Your task to perform on an android device: turn on the 24-hour format for clock Image 0: 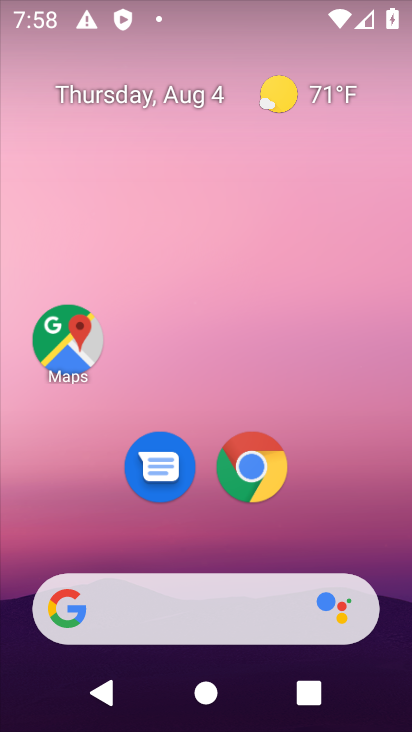
Step 0: press home button
Your task to perform on an android device: turn on the 24-hour format for clock Image 1: 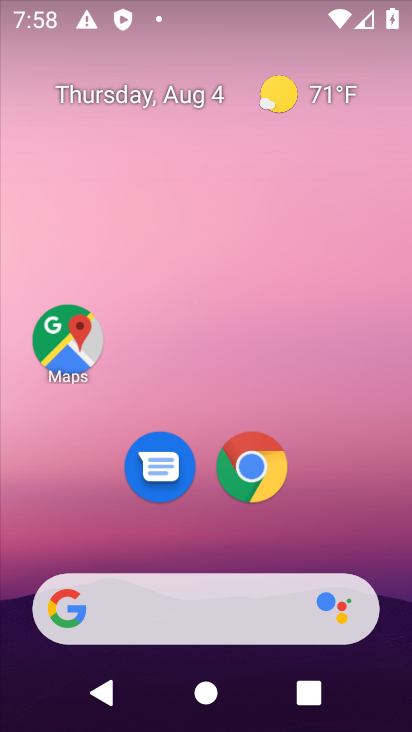
Step 1: drag from (336, 496) to (336, 36)
Your task to perform on an android device: turn on the 24-hour format for clock Image 2: 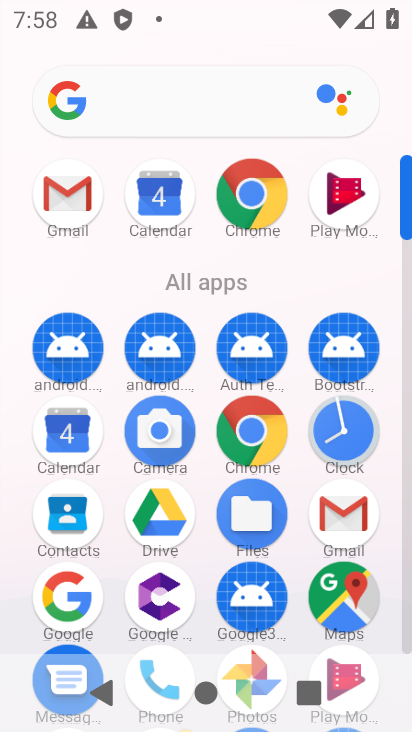
Step 2: click (347, 437)
Your task to perform on an android device: turn on the 24-hour format for clock Image 3: 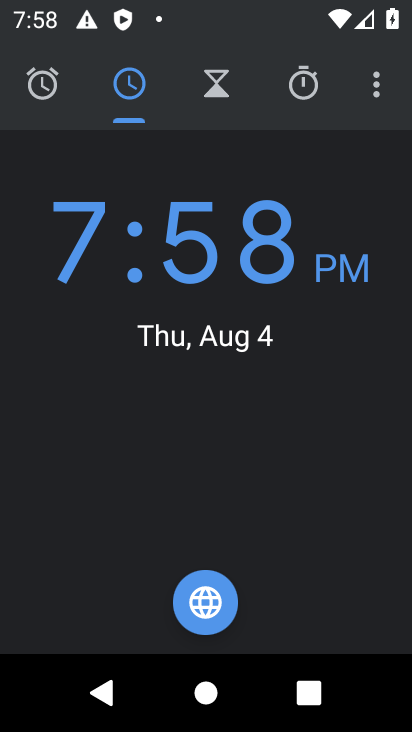
Step 3: click (376, 92)
Your task to perform on an android device: turn on the 24-hour format for clock Image 4: 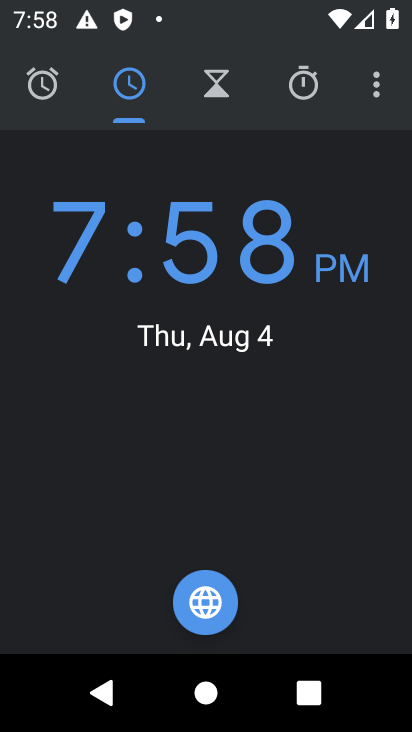
Step 4: click (371, 88)
Your task to perform on an android device: turn on the 24-hour format for clock Image 5: 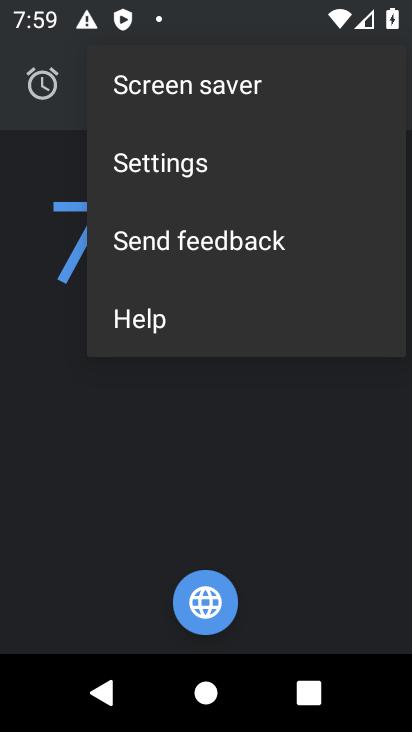
Step 5: click (182, 170)
Your task to perform on an android device: turn on the 24-hour format for clock Image 6: 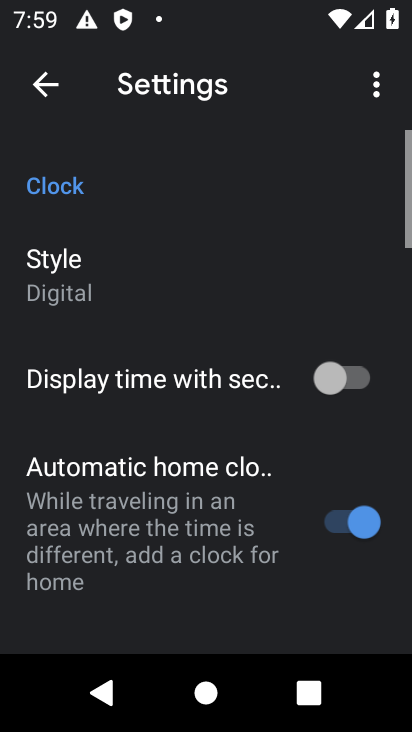
Step 6: drag from (241, 581) to (264, 222)
Your task to perform on an android device: turn on the 24-hour format for clock Image 7: 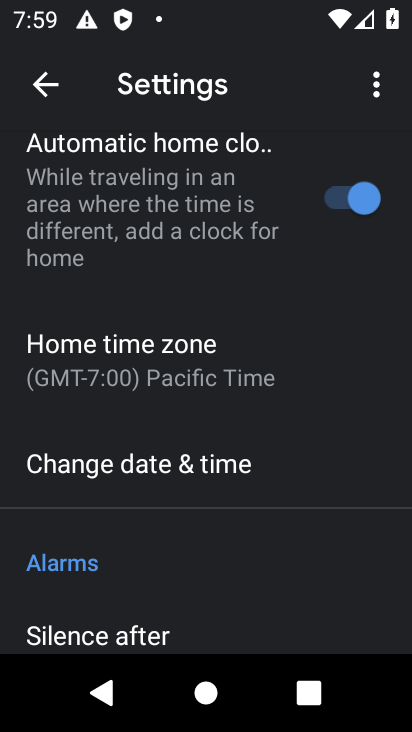
Step 7: drag from (256, 574) to (315, 178)
Your task to perform on an android device: turn on the 24-hour format for clock Image 8: 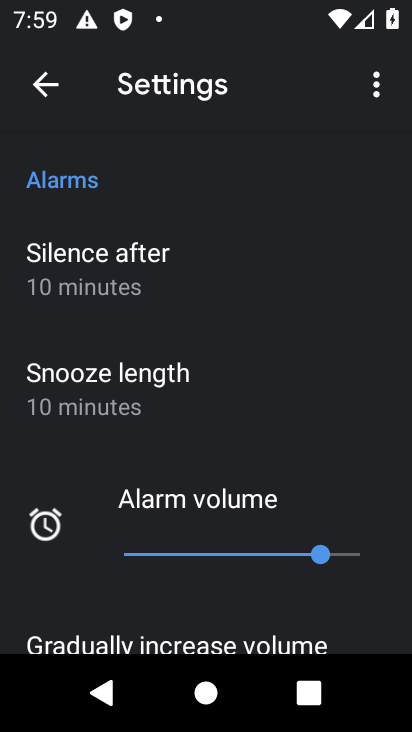
Step 8: drag from (186, 472) to (243, 132)
Your task to perform on an android device: turn on the 24-hour format for clock Image 9: 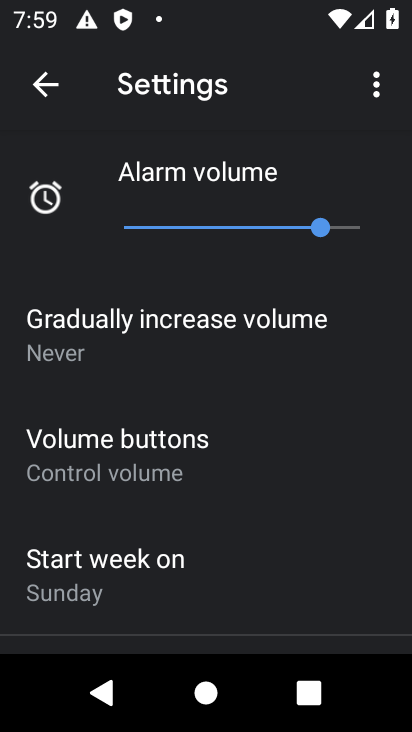
Step 9: drag from (249, 521) to (287, 121)
Your task to perform on an android device: turn on the 24-hour format for clock Image 10: 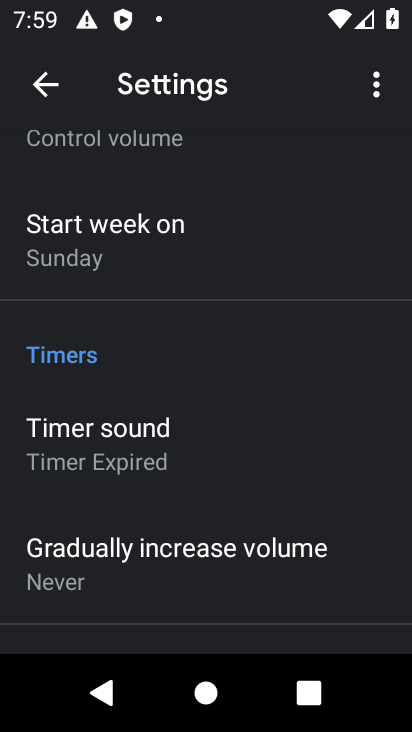
Step 10: drag from (212, 523) to (252, 190)
Your task to perform on an android device: turn on the 24-hour format for clock Image 11: 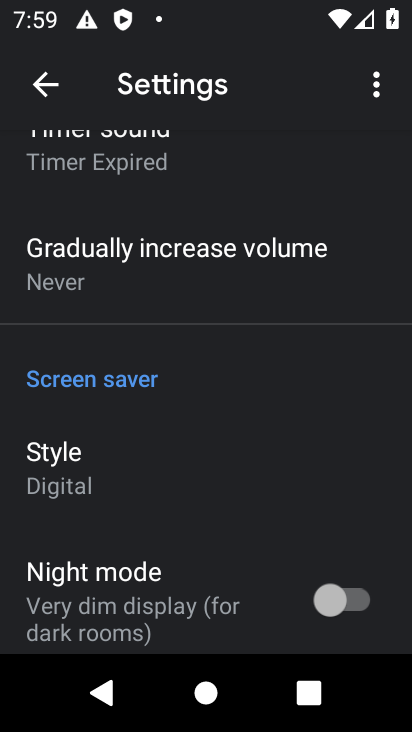
Step 11: drag from (256, 550) to (243, 17)
Your task to perform on an android device: turn on the 24-hour format for clock Image 12: 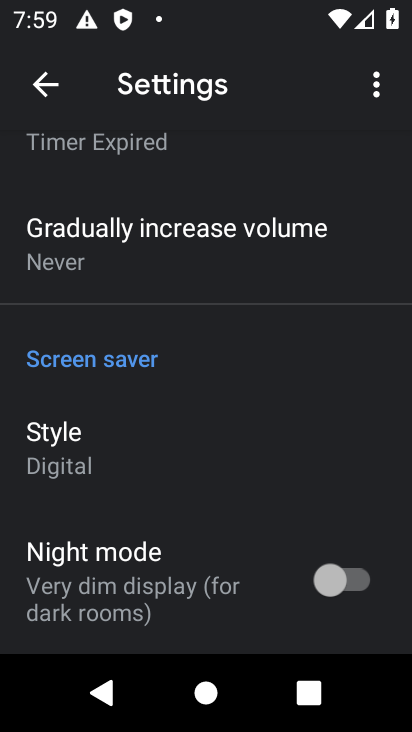
Step 12: drag from (249, 136) to (224, 544)
Your task to perform on an android device: turn on the 24-hour format for clock Image 13: 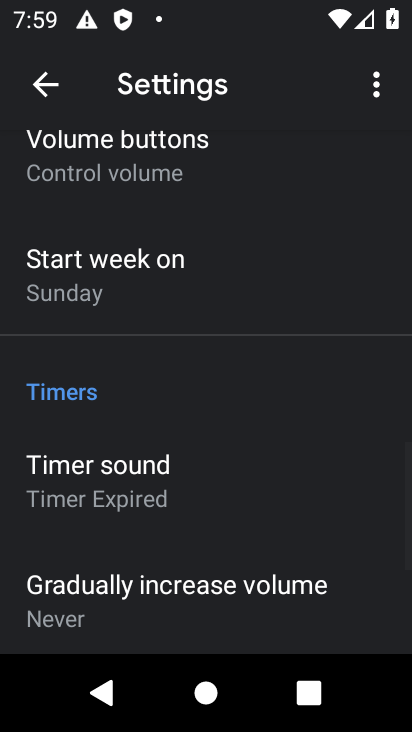
Step 13: drag from (228, 139) to (228, 488)
Your task to perform on an android device: turn on the 24-hour format for clock Image 14: 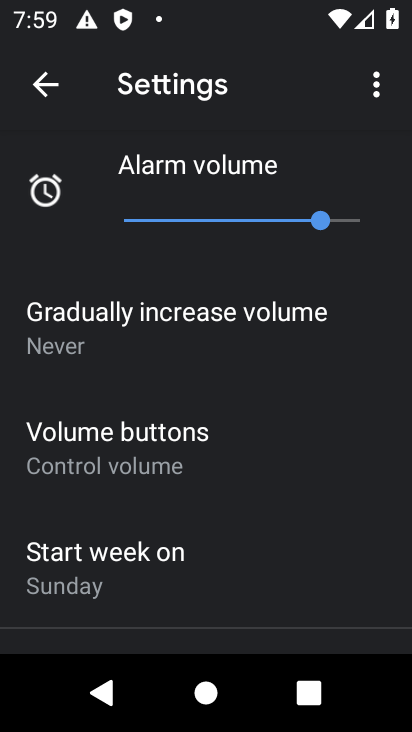
Step 14: drag from (283, 301) to (247, 592)
Your task to perform on an android device: turn on the 24-hour format for clock Image 15: 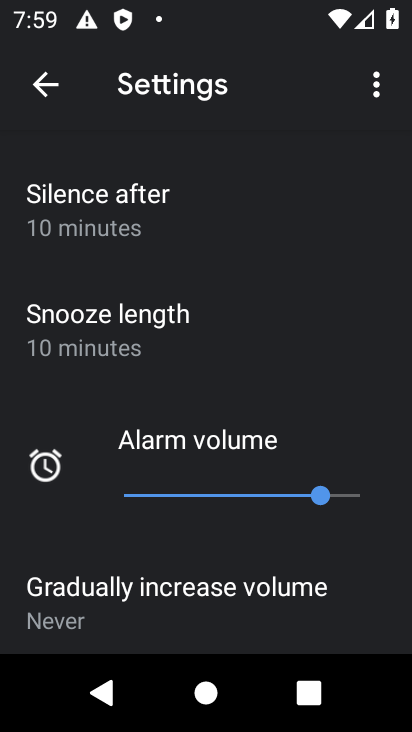
Step 15: drag from (207, 167) to (182, 572)
Your task to perform on an android device: turn on the 24-hour format for clock Image 16: 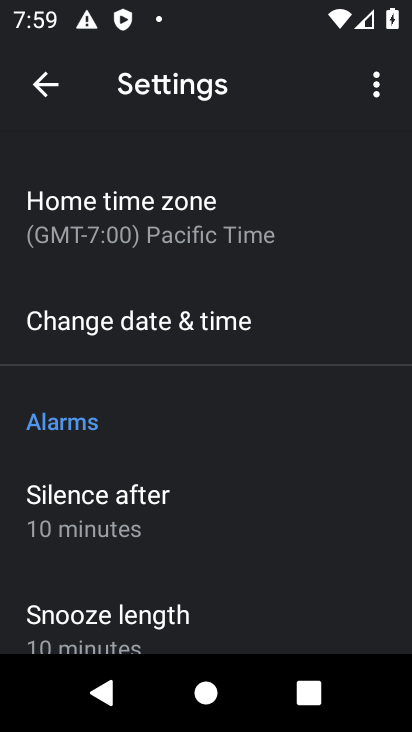
Step 16: click (158, 329)
Your task to perform on an android device: turn on the 24-hour format for clock Image 17: 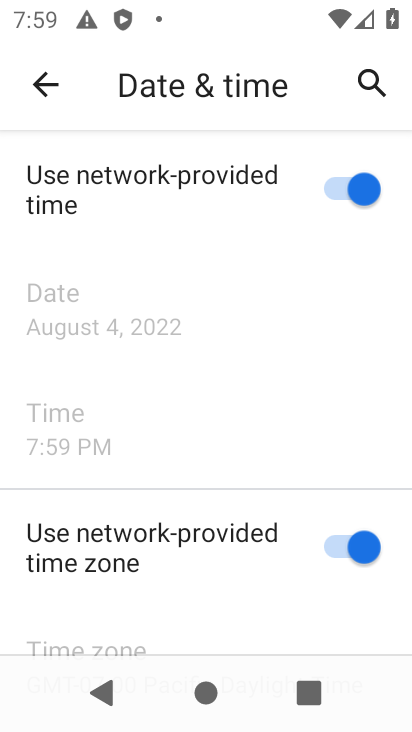
Step 17: drag from (281, 608) to (334, 164)
Your task to perform on an android device: turn on the 24-hour format for clock Image 18: 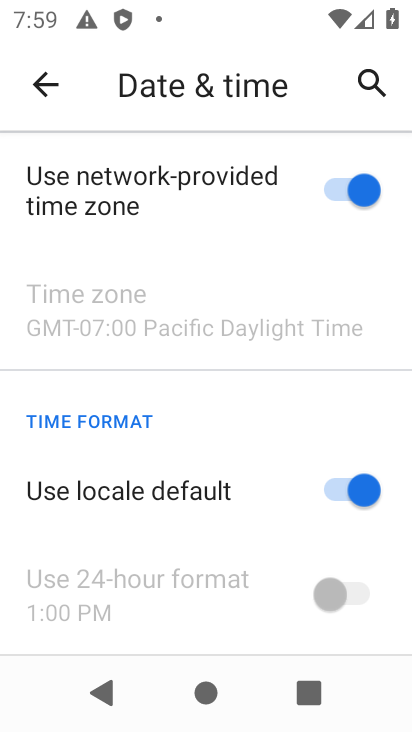
Step 18: click (355, 489)
Your task to perform on an android device: turn on the 24-hour format for clock Image 19: 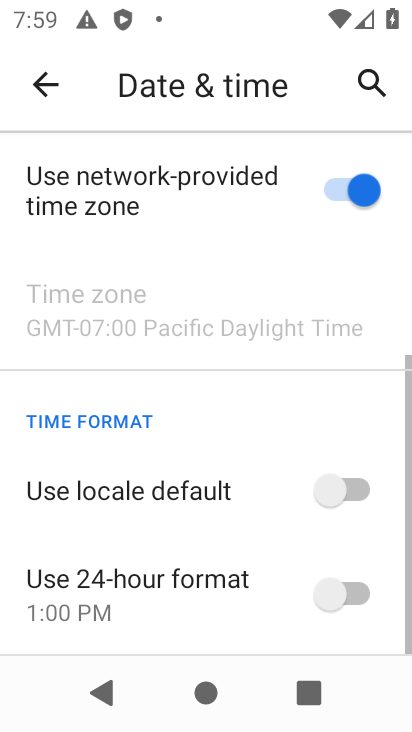
Step 19: click (336, 581)
Your task to perform on an android device: turn on the 24-hour format for clock Image 20: 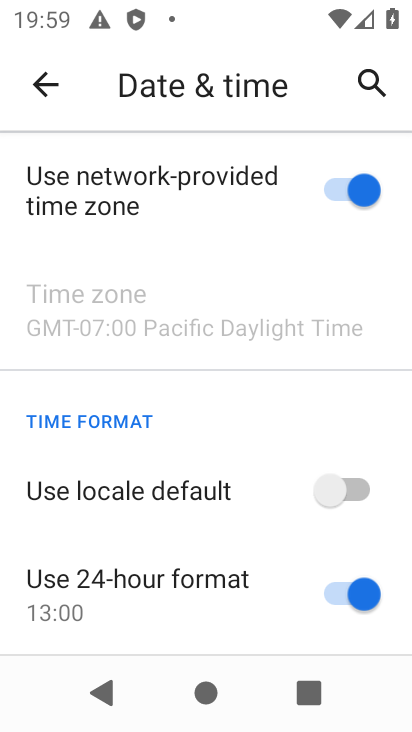
Step 20: task complete